Your task to perform on an android device: Search for good Japanese restaurants Image 0: 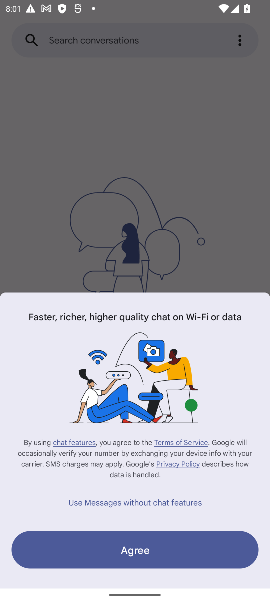
Step 0: press home button
Your task to perform on an android device: Search for good Japanese restaurants Image 1: 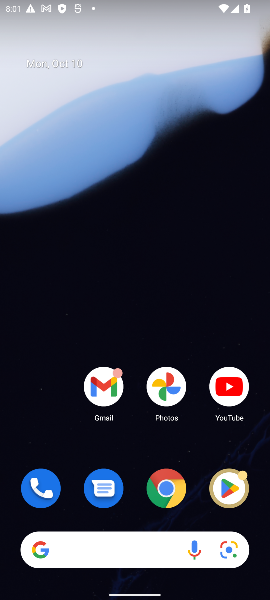
Step 1: drag from (136, 447) to (169, 42)
Your task to perform on an android device: Search for good Japanese restaurants Image 2: 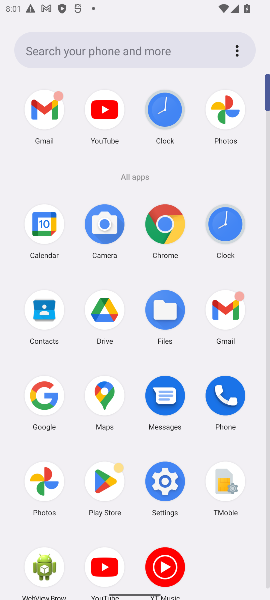
Step 2: click (166, 222)
Your task to perform on an android device: Search for good Japanese restaurants Image 3: 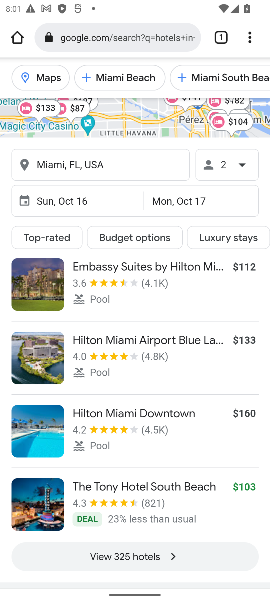
Step 3: click (138, 31)
Your task to perform on an android device: Search for good Japanese restaurants Image 4: 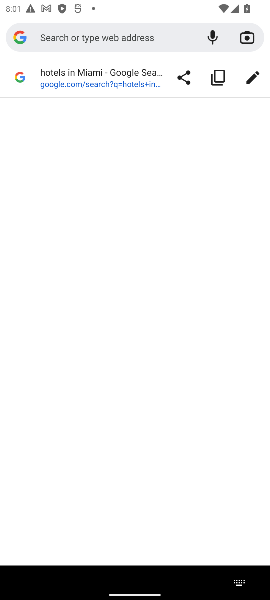
Step 4: type "good Japanese restaurants"
Your task to perform on an android device: Search for good Japanese restaurants Image 5: 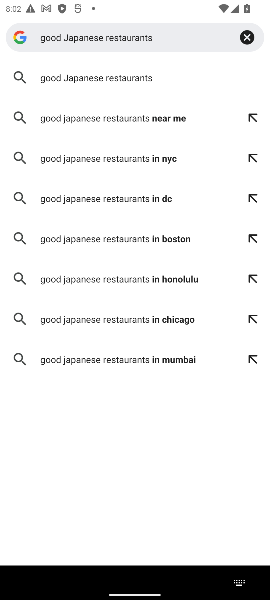
Step 5: press enter
Your task to perform on an android device: Search for good Japanese restaurants Image 6: 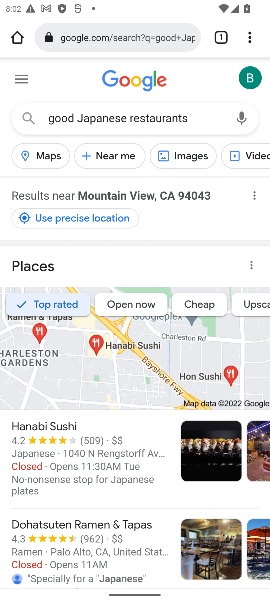
Step 6: task complete